Your task to perform on an android device: turn off data saver in the chrome app Image 0: 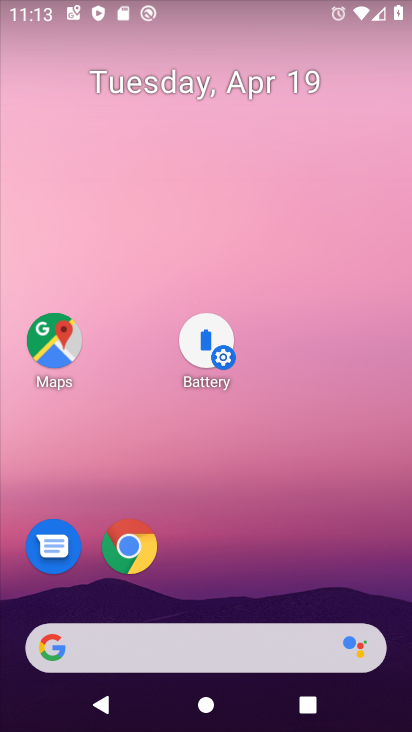
Step 0: click (116, 537)
Your task to perform on an android device: turn off data saver in the chrome app Image 1: 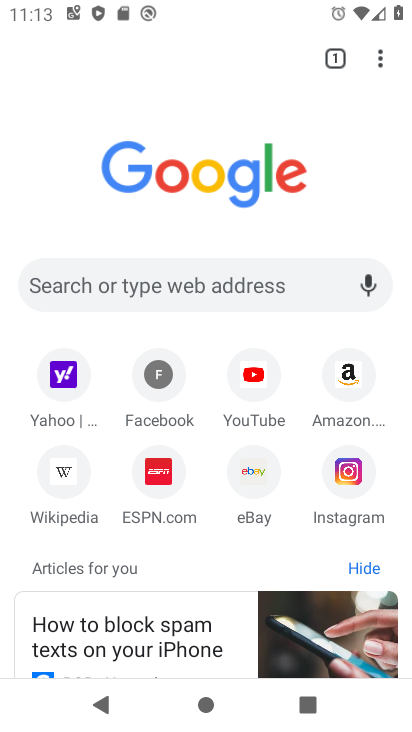
Step 1: click (372, 48)
Your task to perform on an android device: turn off data saver in the chrome app Image 2: 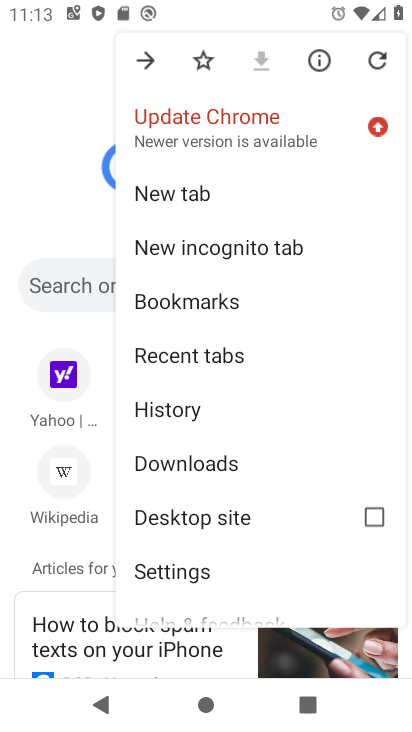
Step 2: click (235, 567)
Your task to perform on an android device: turn off data saver in the chrome app Image 3: 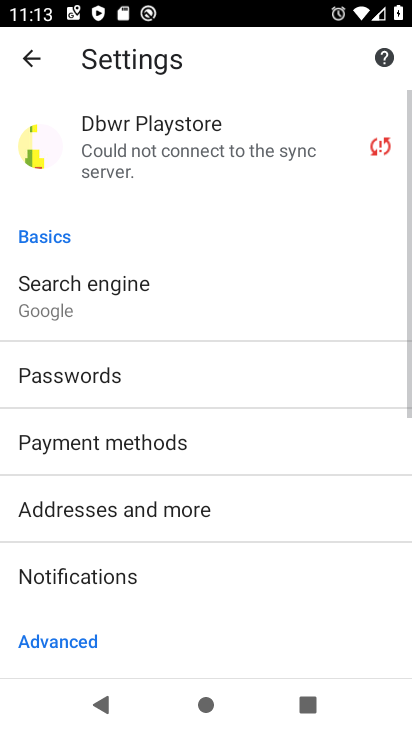
Step 3: drag from (191, 606) to (312, 106)
Your task to perform on an android device: turn off data saver in the chrome app Image 4: 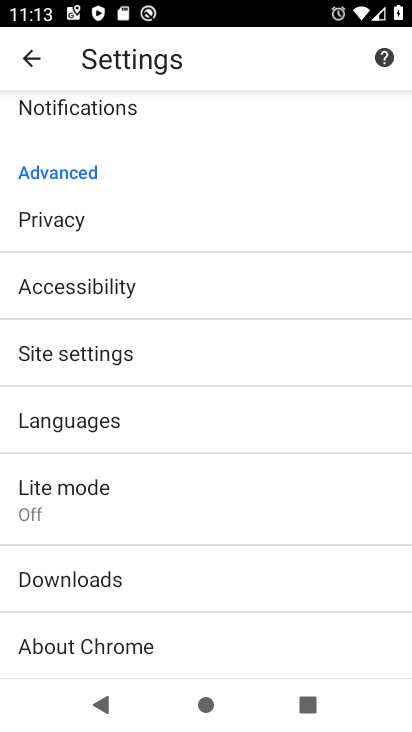
Step 4: click (178, 485)
Your task to perform on an android device: turn off data saver in the chrome app Image 5: 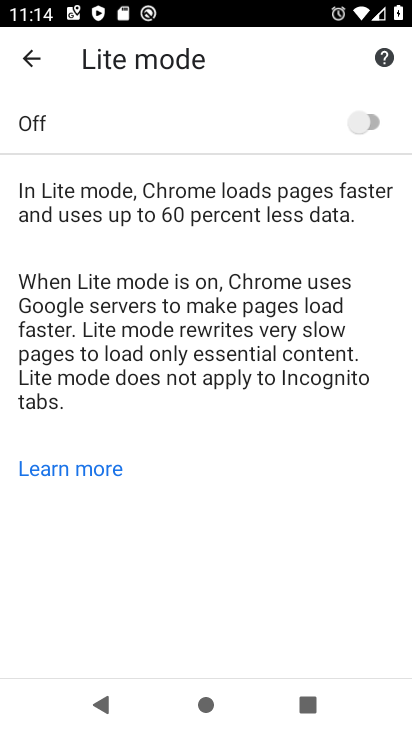
Step 5: task complete